Your task to perform on an android device: Go to Google Image 0: 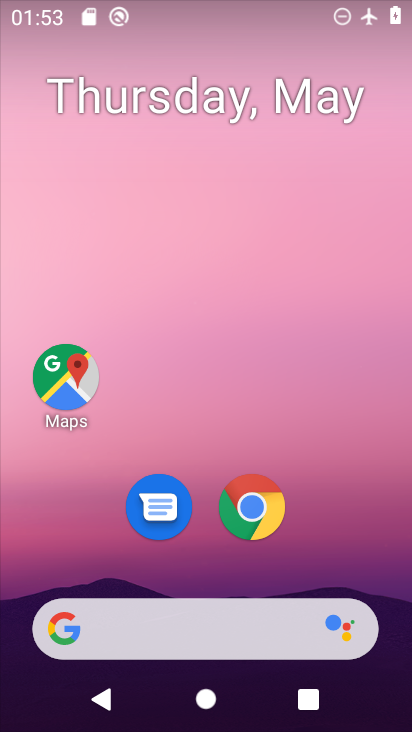
Step 0: click (262, 619)
Your task to perform on an android device: Go to Google Image 1: 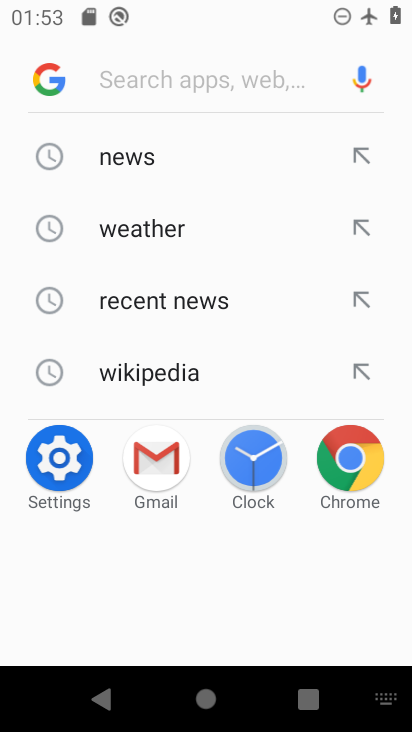
Step 1: type "google.com"
Your task to perform on an android device: Go to Google Image 2: 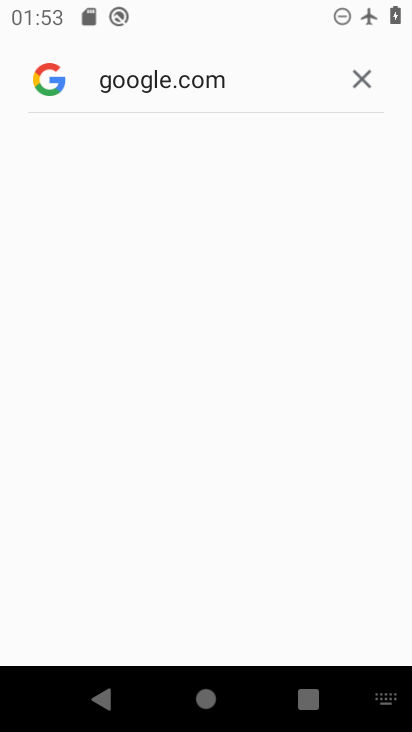
Step 2: task complete